Your task to perform on an android device: Clear the cart on amazon. Search for "razer blackwidow" on amazon, select the first entry, add it to the cart, then select checkout. Image 0: 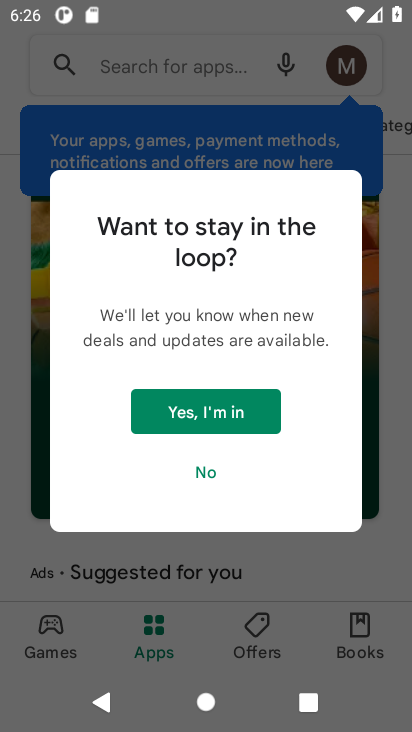
Step 0: press home button
Your task to perform on an android device: Clear the cart on amazon. Search for "razer blackwidow" on amazon, select the first entry, add it to the cart, then select checkout. Image 1: 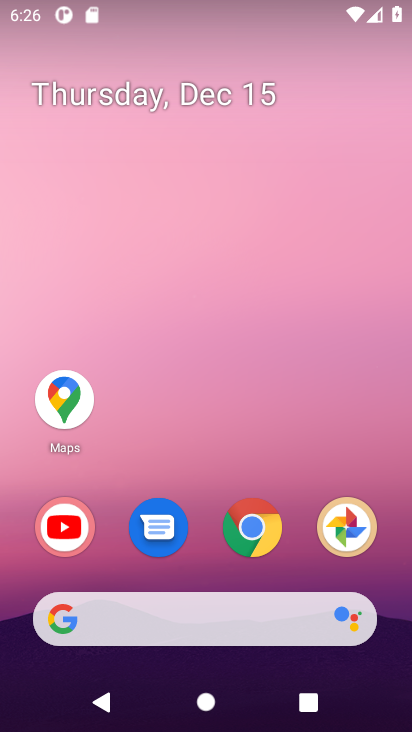
Step 1: click (264, 529)
Your task to perform on an android device: Clear the cart on amazon. Search for "razer blackwidow" on amazon, select the first entry, add it to the cart, then select checkout. Image 2: 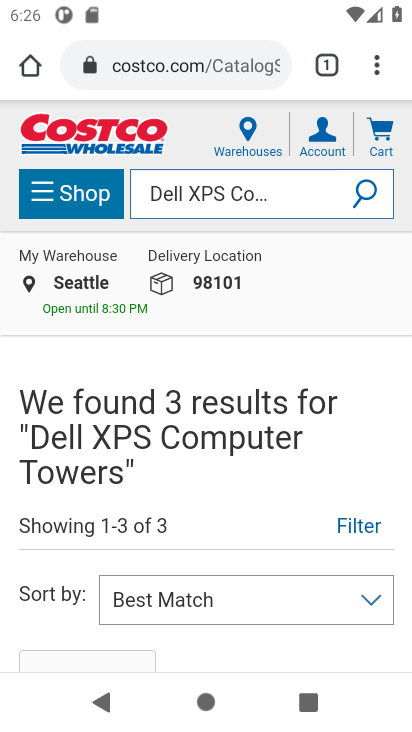
Step 2: click (196, 52)
Your task to perform on an android device: Clear the cart on amazon. Search for "razer blackwidow" on amazon, select the first entry, add it to the cart, then select checkout. Image 3: 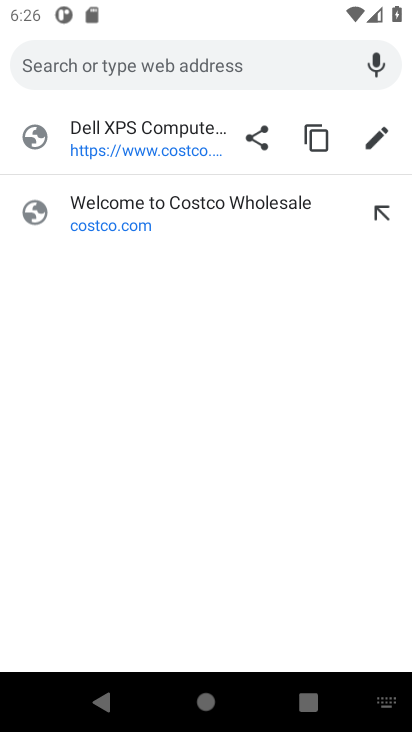
Step 3: type "amazon"
Your task to perform on an android device: Clear the cart on amazon. Search for "razer blackwidow" on amazon, select the first entry, add it to the cart, then select checkout. Image 4: 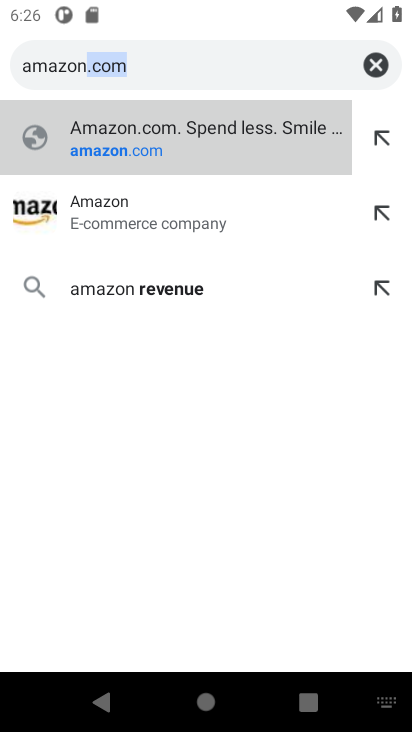
Step 4: click (101, 129)
Your task to perform on an android device: Clear the cart on amazon. Search for "razer blackwidow" on amazon, select the first entry, add it to the cart, then select checkout. Image 5: 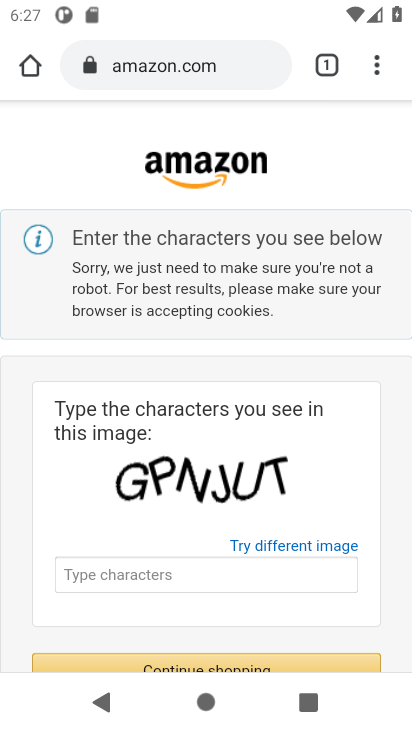
Step 5: click (228, 577)
Your task to perform on an android device: Clear the cart on amazon. Search for "razer blackwidow" on amazon, select the first entry, add it to the cart, then select checkout. Image 6: 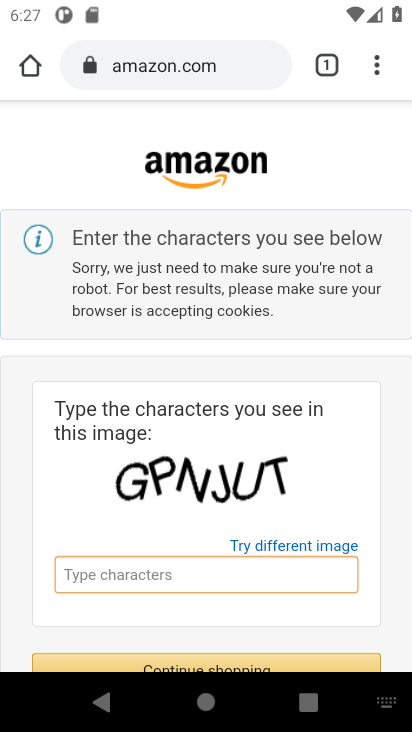
Step 6: type "GPNJUT"
Your task to perform on an android device: Clear the cart on amazon. Search for "razer blackwidow" on amazon, select the first entry, add it to the cart, then select checkout. Image 7: 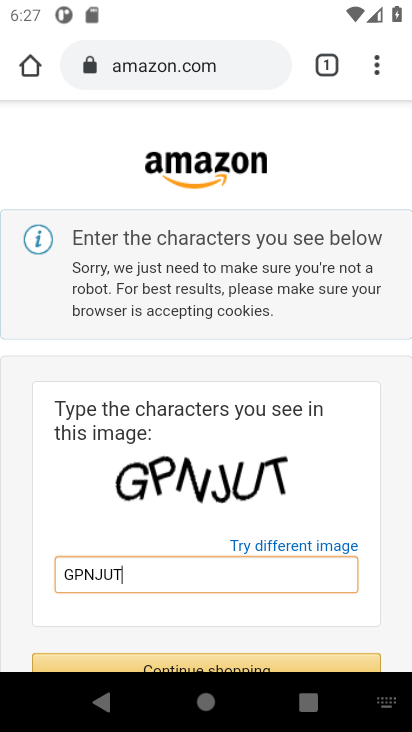
Step 7: click (256, 658)
Your task to perform on an android device: Clear the cart on amazon. Search for "razer blackwidow" on amazon, select the first entry, add it to the cart, then select checkout. Image 8: 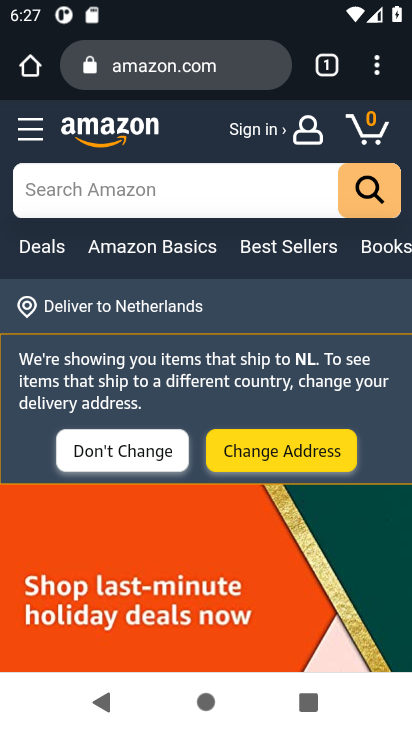
Step 8: click (163, 182)
Your task to perform on an android device: Clear the cart on amazon. Search for "razer blackwidow" on amazon, select the first entry, add it to the cart, then select checkout. Image 9: 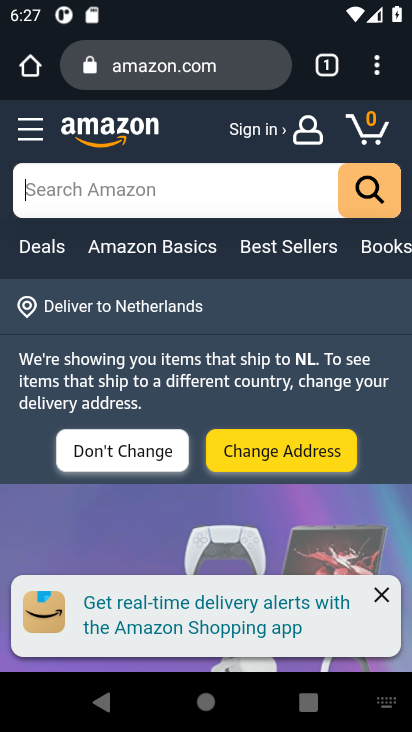
Step 9: type "razer blackwindow"
Your task to perform on an android device: Clear the cart on amazon. Search for "razer blackwidow" on amazon, select the first entry, add it to the cart, then select checkout. Image 10: 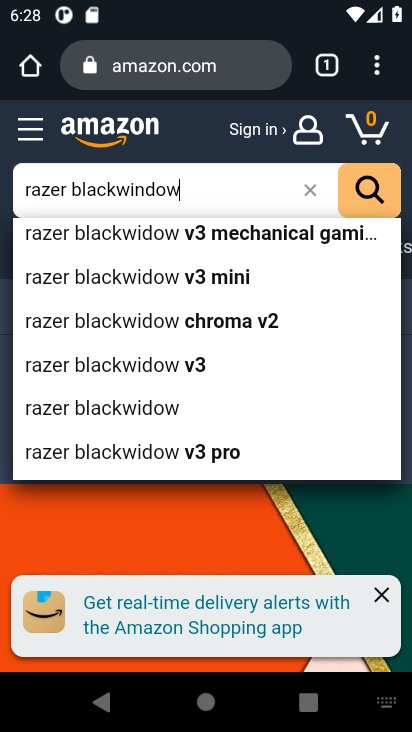
Step 10: click (371, 206)
Your task to perform on an android device: Clear the cart on amazon. Search for "razer blackwidow" on amazon, select the first entry, add it to the cart, then select checkout. Image 11: 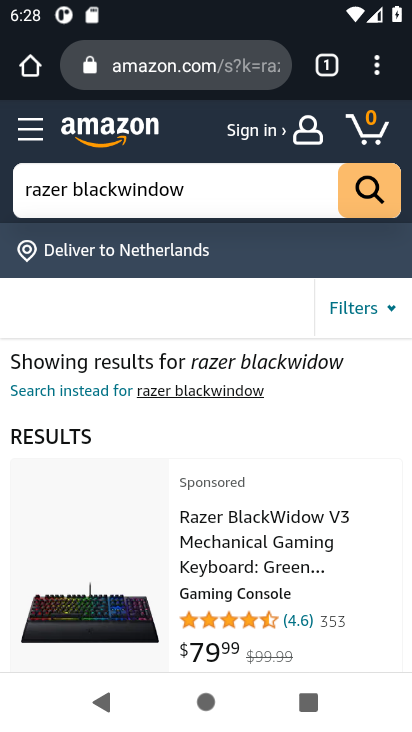
Step 11: click (208, 517)
Your task to perform on an android device: Clear the cart on amazon. Search for "razer blackwidow" on amazon, select the first entry, add it to the cart, then select checkout. Image 12: 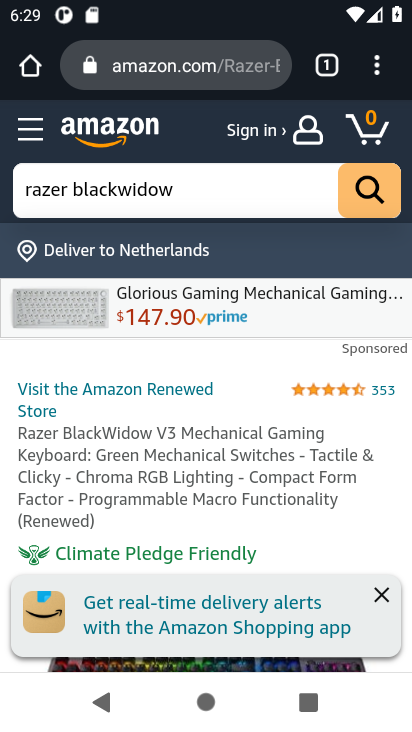
Step 12: click (389, 604)
Your task to perform on an android device: Clear the cart on amazon. Search for "razer blackwidow" on amazon, select the first entry, add it to the cart, then select checkout. Image 13: 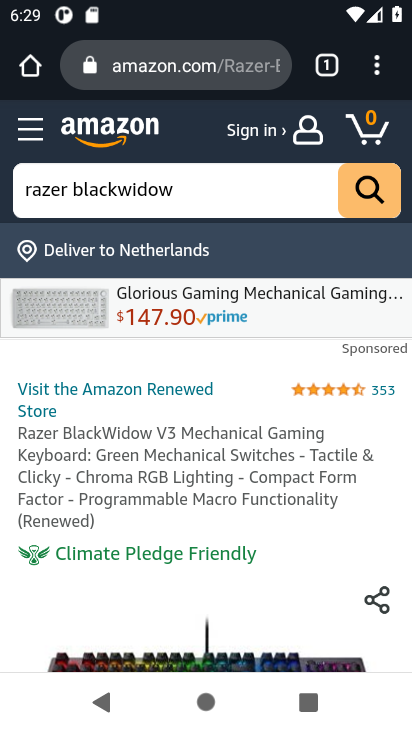
Step 13: drag from (264, 640) to (221, 238)
Your task to perform on an android device: Clear the cart on amazon. Search for "razer blackwidow" on amazon, select the first entry, add it to the cart, then select checkout. Image 14: 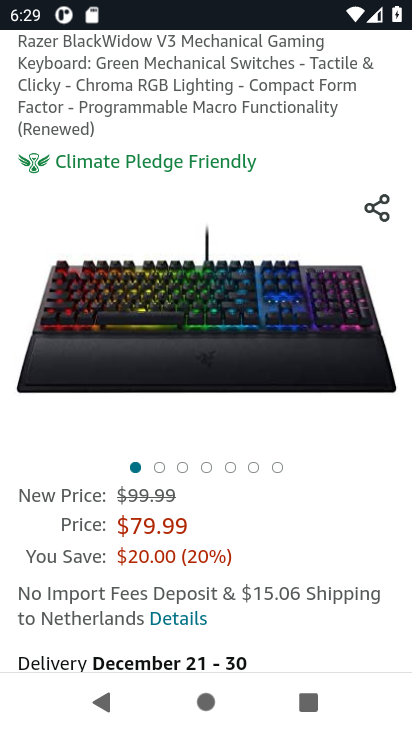
Step 14: drag from (287, 650) to (265, 168)
Your task to perform on an android device: Clear the cart on amazon. Search for "razer blackwidow" on amazon, select the first entry, add it to the cart, then select checkout. Image 15: 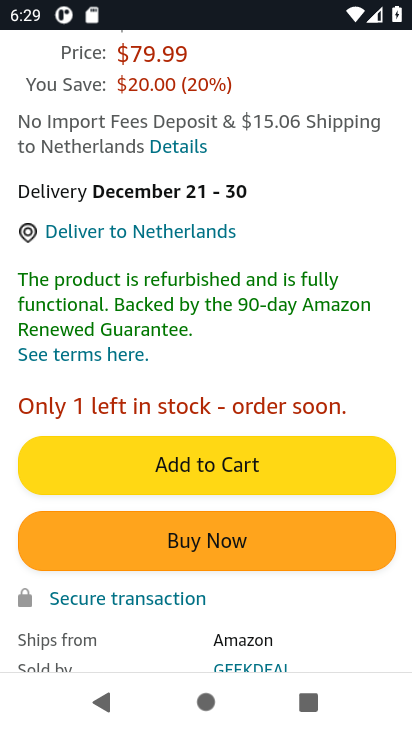
Step 15: click (232, 444)
Your task to perform on an android device: Clear the cart on amazon. Search for "razer blackwidow" on amazon, select the first entry, add it to the cart, then select checkout. Image 16: 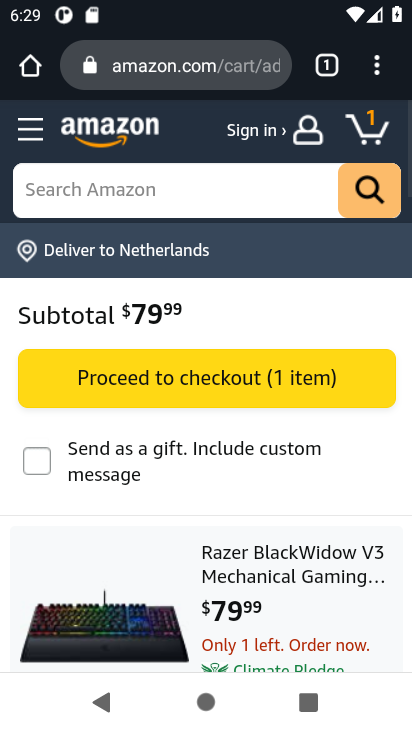
Step 16: task complete